Your task to perform on an android device: open sync settings in chrome Image 0: 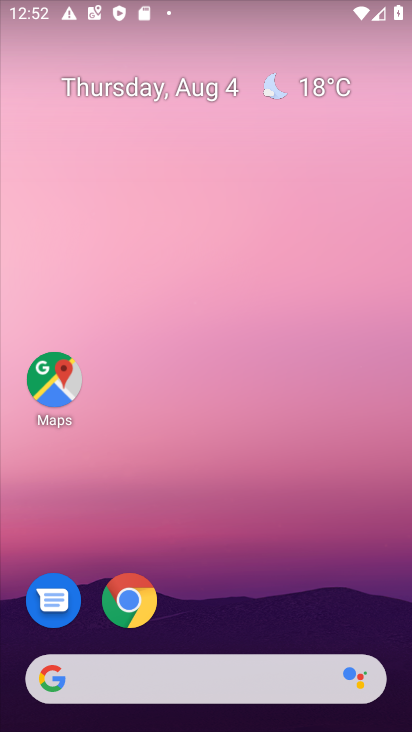
Step 0: press home button
Your task to perform on an android device: open sync settings in chrome Image 1: 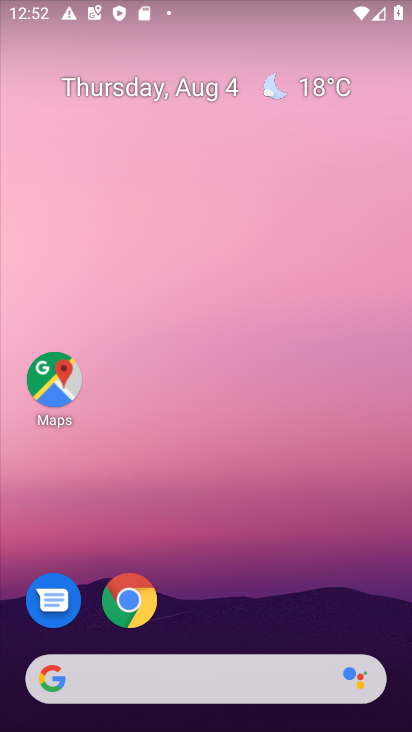
Step 1: click (136, 607)
Your task to perform on an android device: open sync settings in chrome Image 2: 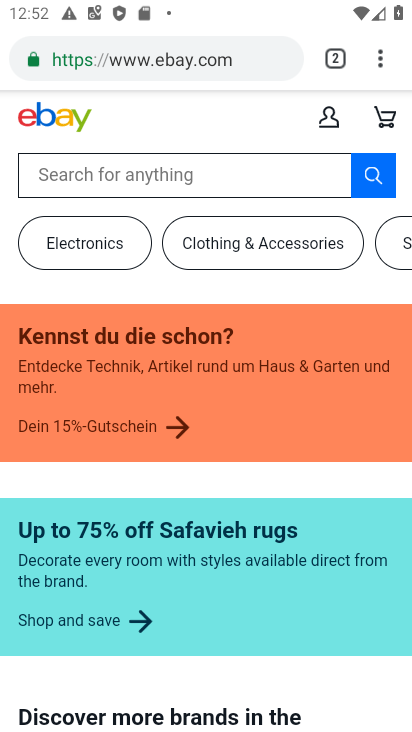
Step 2: drag from (376, 55) to (224, 625)
Your task to perform on an android device: open sync settings in chrome Image 3: 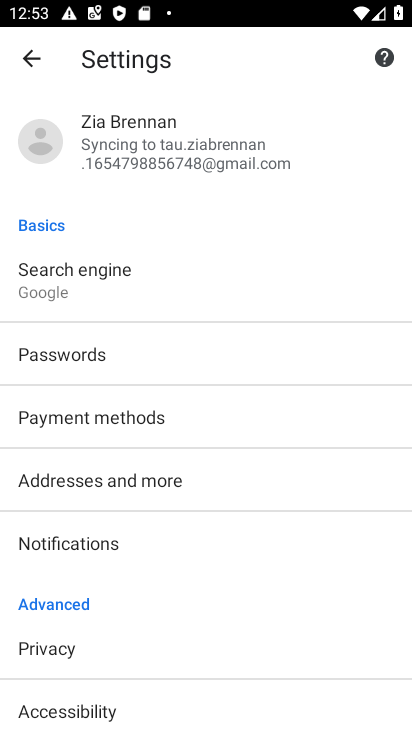
Step 3: click (222, 124)
Your task to perform on an android device: open sync settings in chrome Image 4: 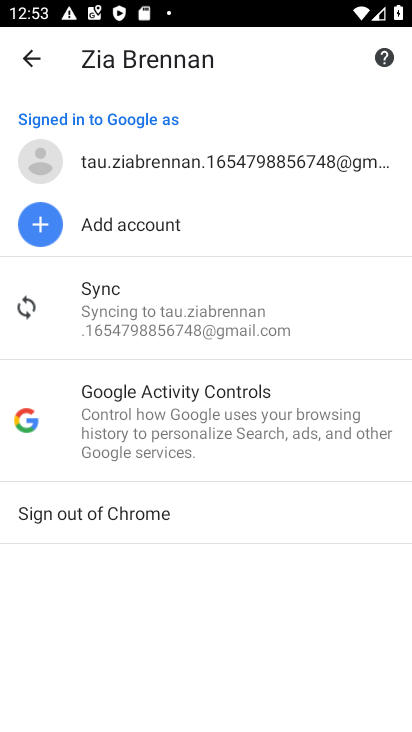
Step 4: click (187, 294)
Your task to perform on an android device: open sync settings in chrome Image 5: 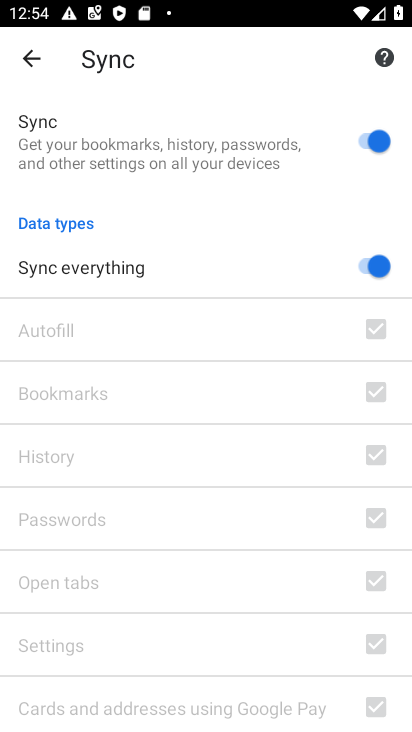
Step 5: task complete